Your task to perform on an android device: set an alarm Image 0: 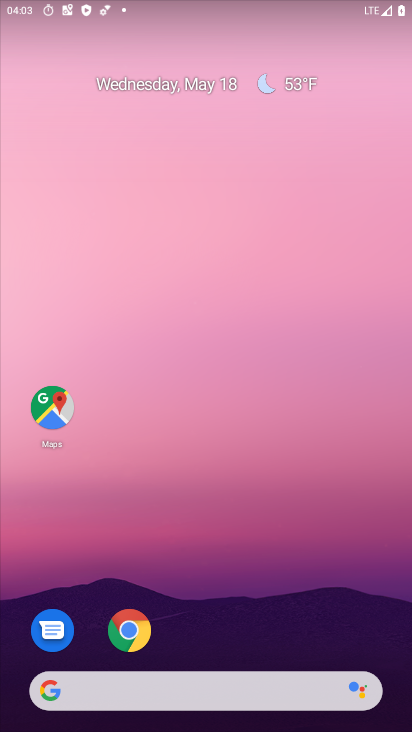
Step 0: drag from (168, 725) to (172, 58)
Your task to perform on an android device: set an alarm Image 1: 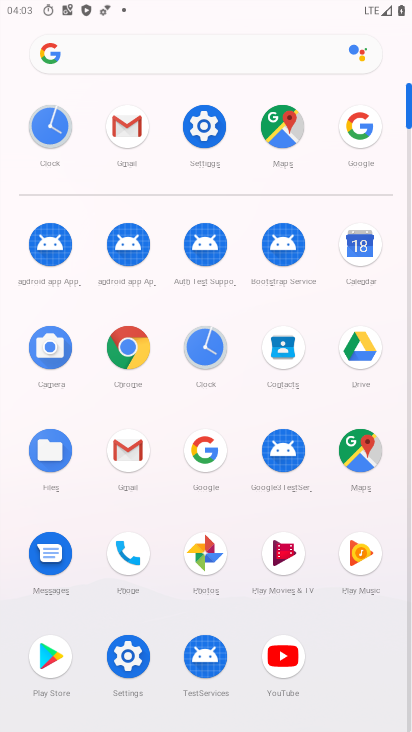
Step 1: click (196, 345)
Your task to perform on an android device: set an alarm Image 2: 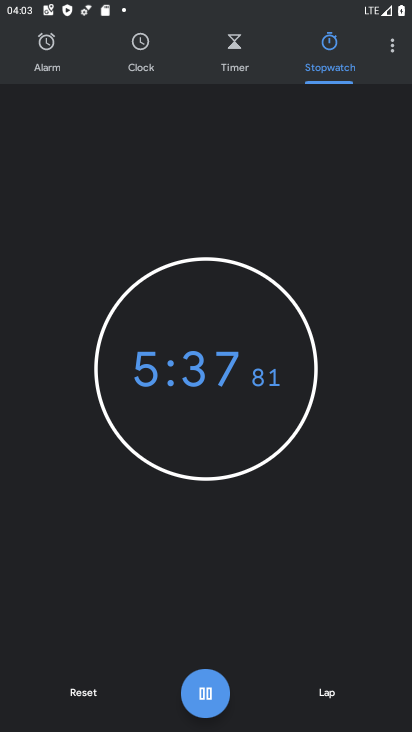
Step 2: click (43, 44)
Your task to perform on an android device: set an alarm Image 3: 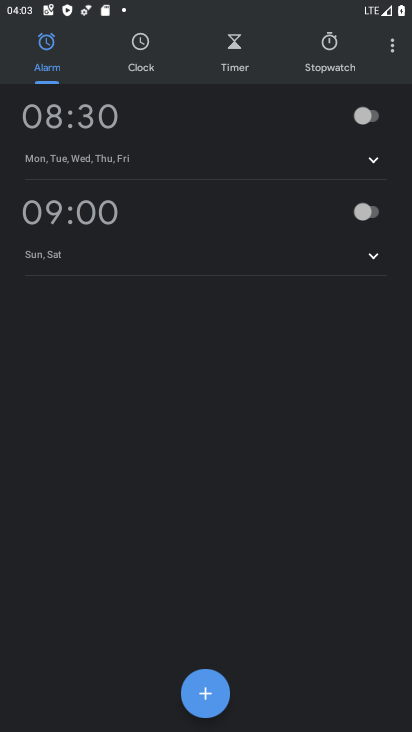
Step 3: click (210, 693)
Your task to perform on an android device: set an alarm Image 4: 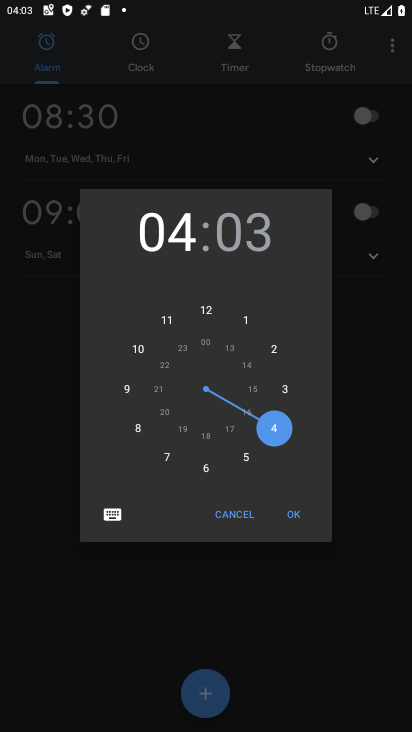
Step 4: click (204, 467)
Your task to perform on an android device: set an alarm Image 5: 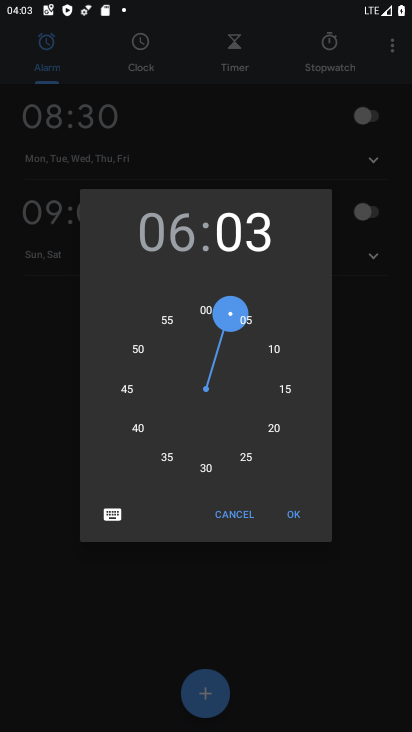
Step 5: click (296, 515)
Your task to perform on an android device: set an alarm Image 6: 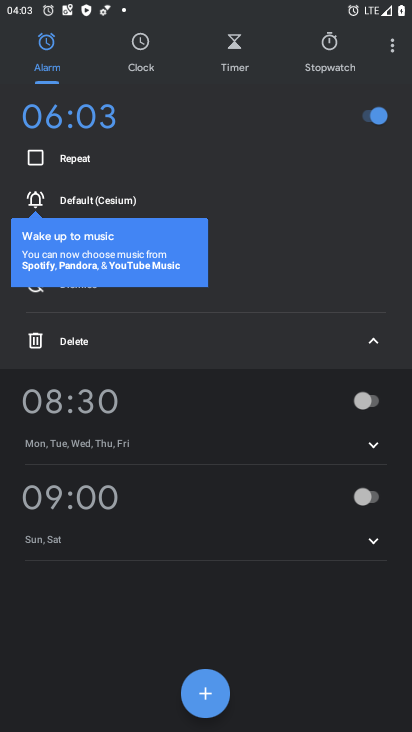
Step 6: task complete